Your task to perform on an android device: turn off javascript in the chrome app Image 0: 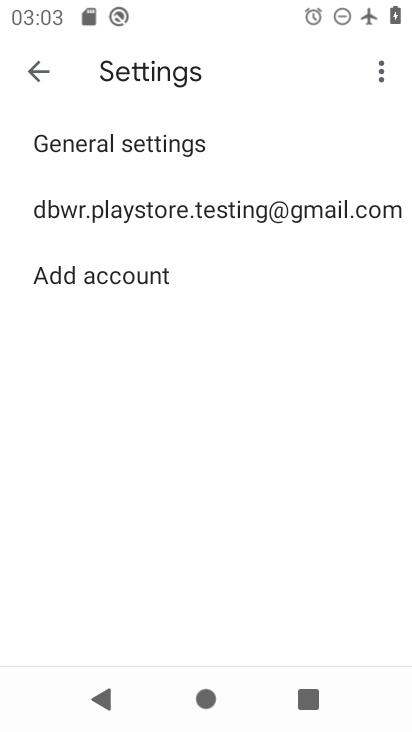
Step 0: press home button
Your task to perform on an android device: turn off javascript in the chrome app Image 1: 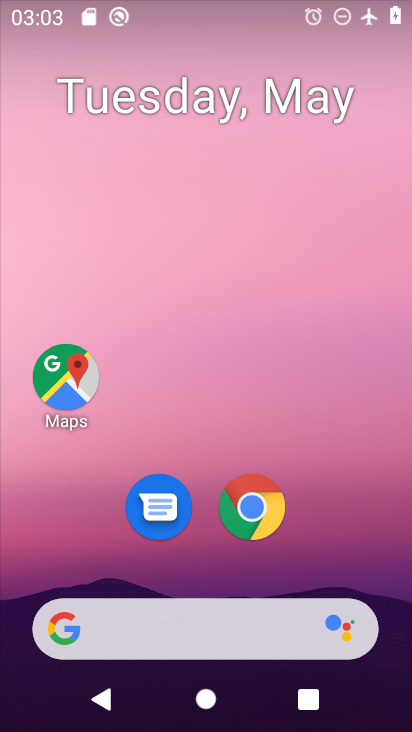
Step 1: click (256, 506)
Your task to perform on an android device: turn off javascript in the chrome app Image 2: 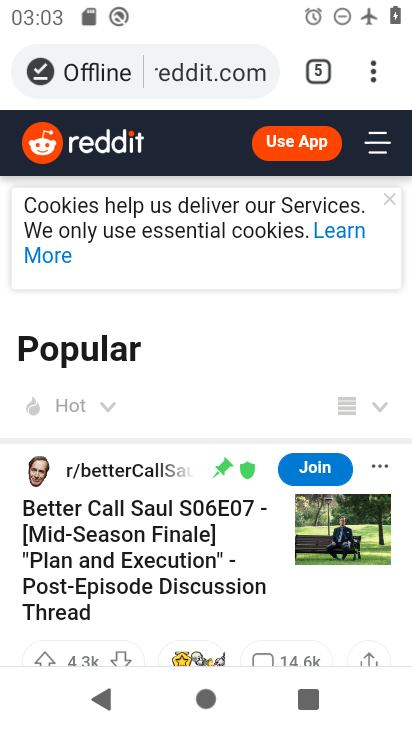
Step 2: drag from (380, 65) to (175, 495)
Your task to perform on an android device: turn off javascript in the chrome app Image 3: 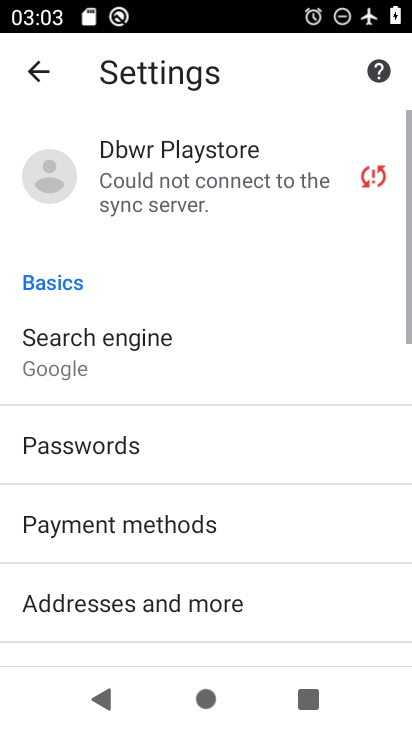
Step 3: drag from (191, 557) to (196, 285)
Your task to perform on an android device: turn off javascript in the chrome app Image 4: 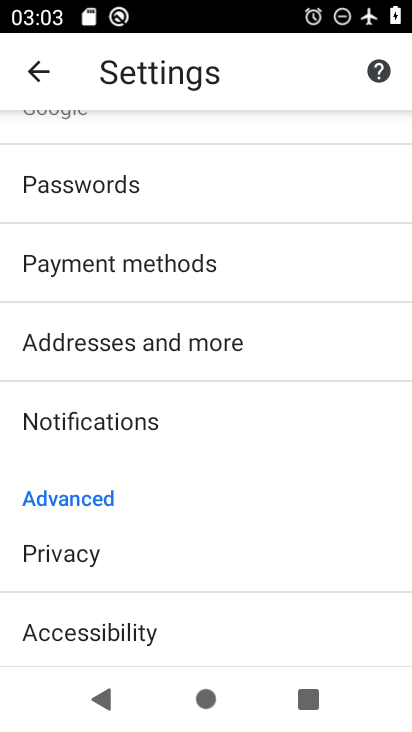
Step 4: drag from (162, 590) to (182, 348)
Your task to perform on an android device: turn off javascript in the chrome app Image 5: 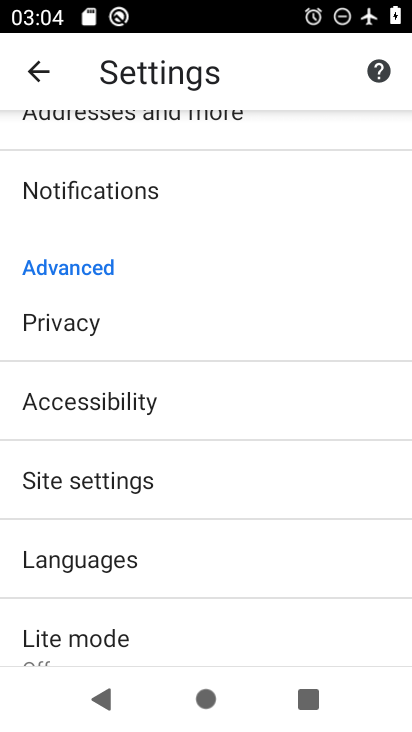
Step 5: drag from (154, 567) to (190, 391)
Your task to perform on an android device: turn off javascript in the chrome app Image 6: 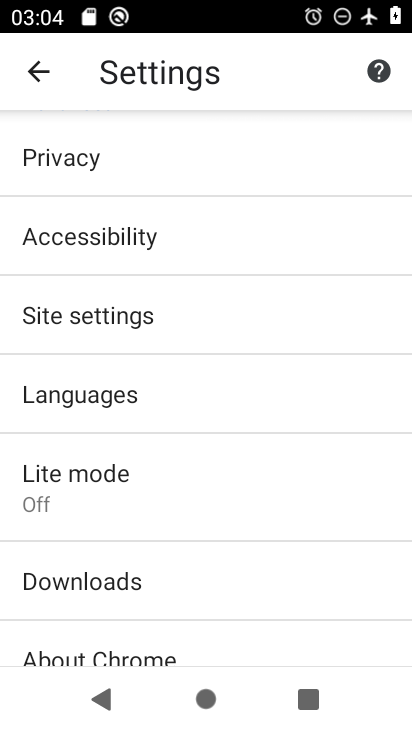
Step 6: click (153, 472)
Your task to perform on an android device: turn off javascript in the chrome app Image 7: 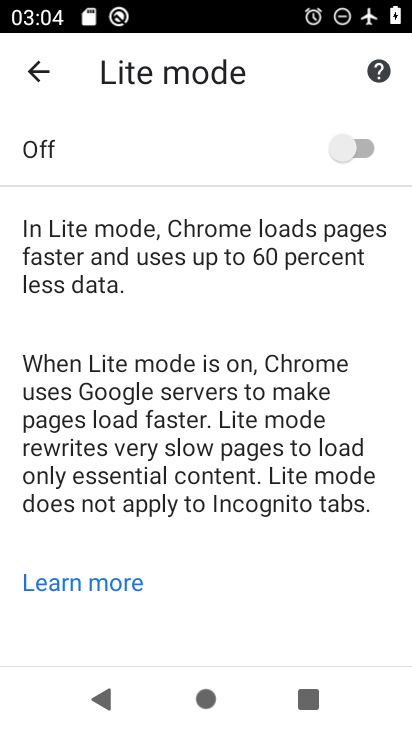
Step 7: task complete